Your task to perform on an android device: check battery use Image 0: 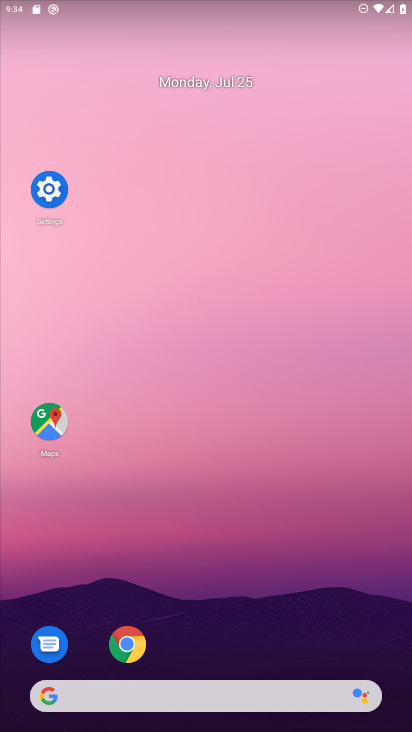
Step 0: click (47, 188)
Your task to perform on an android device: check battery use Image 1: 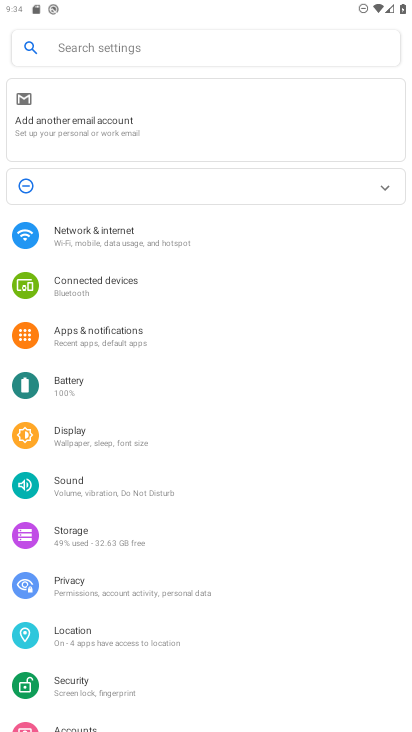
Step 1: click (123, 391)
Your task to perform on an android device: check battery use Image 2: 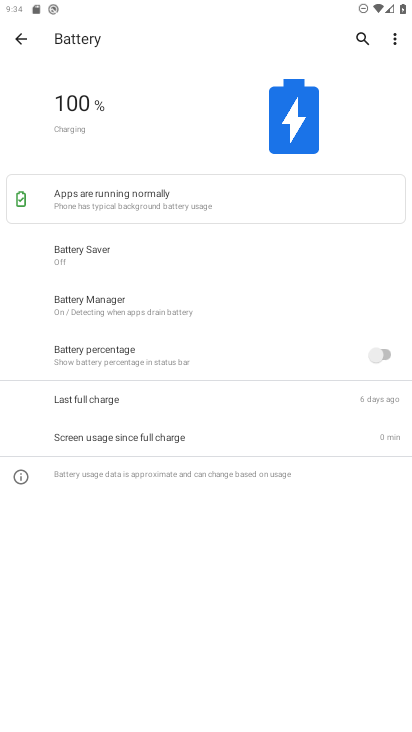
Step 2: click (394, 41)
Your task to perform on an android device: check battery use Image 3: 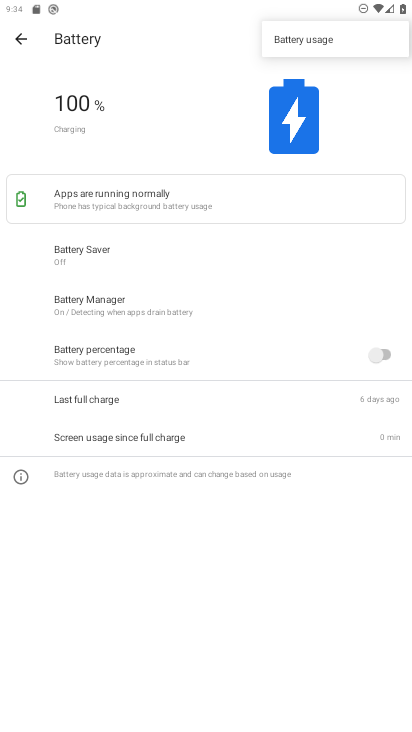
Step 3: click (309, 41)
Your task to perform on an android device: check battery use Image 4: 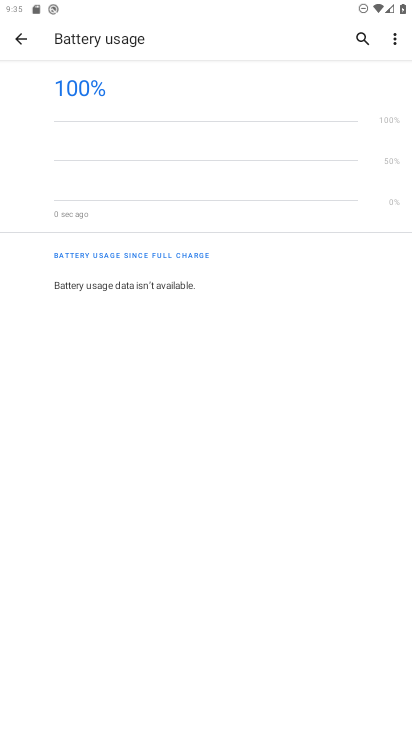
Step 4: task complete